Your task to perform on an android device: Go to Maps Image 0: 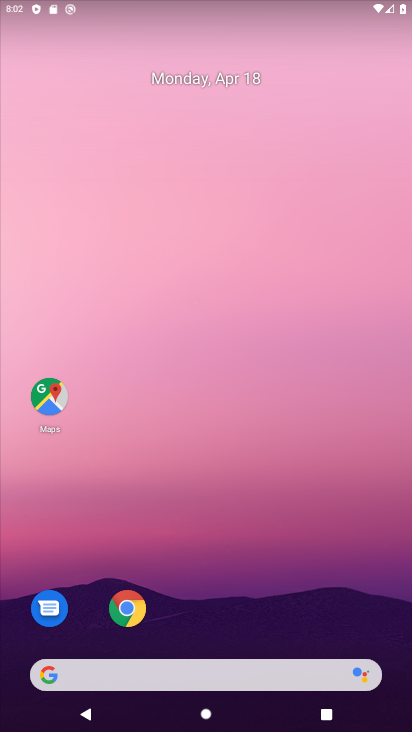
Step 0: drag from (279, 556) to (222, 199)
Your task to perform on an android device: Go to Maps Image 1: 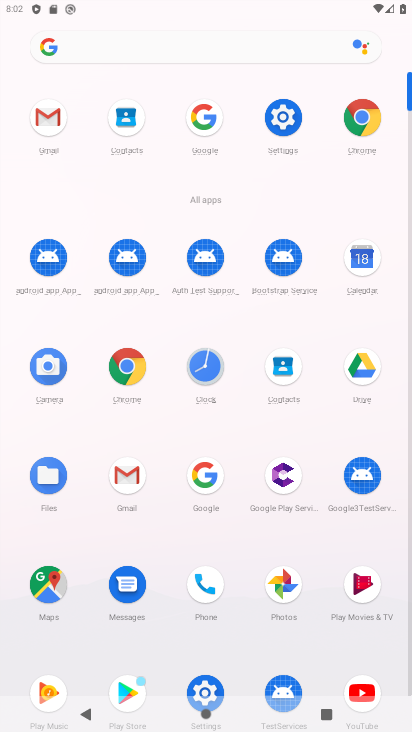
Step 1: click (46, 584)
Your task to perform on an android device: Go to Maps Image 2: 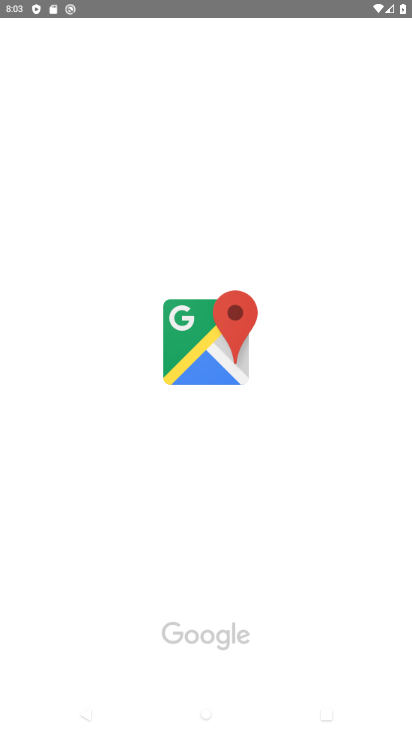
Step 2: task complete